Your task to perform on an android device: What is the recent news? Image 0: 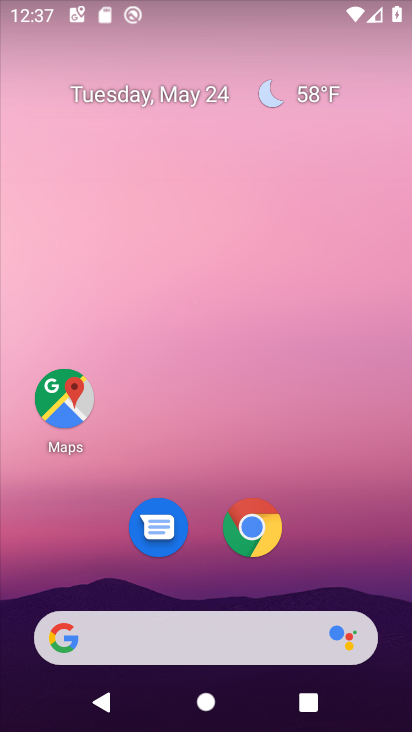
Step 0: click (256, 638)
Your task to perform on an android device: What is the recent news? Image 1: 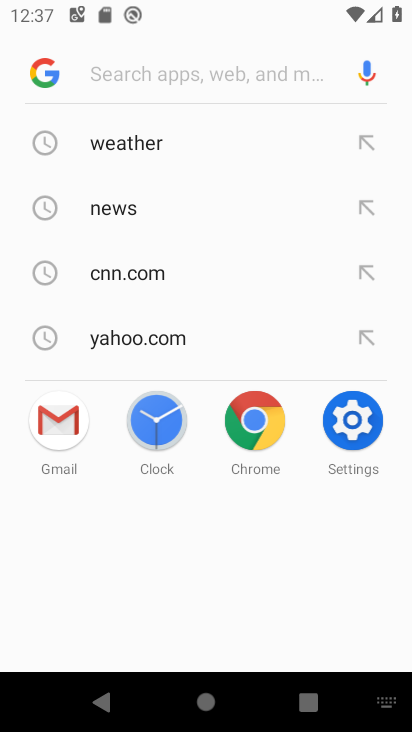
Step 1: click (131, 209)
Your task to perform on an android device: What is the recent news? Image 2: 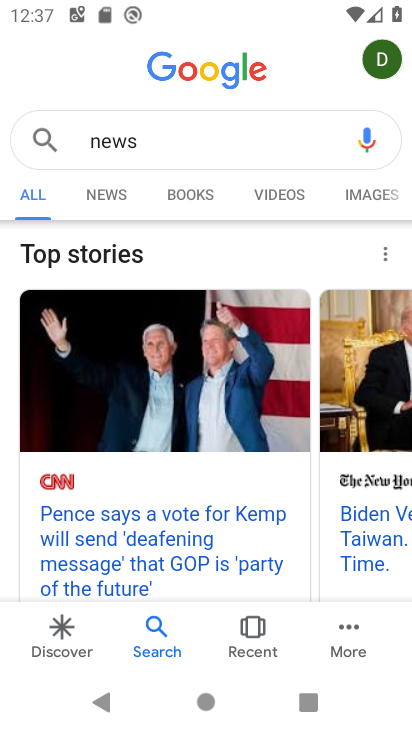
Step 2: task complete